Your task to perform on an android device: Go to Amazon Image 0: 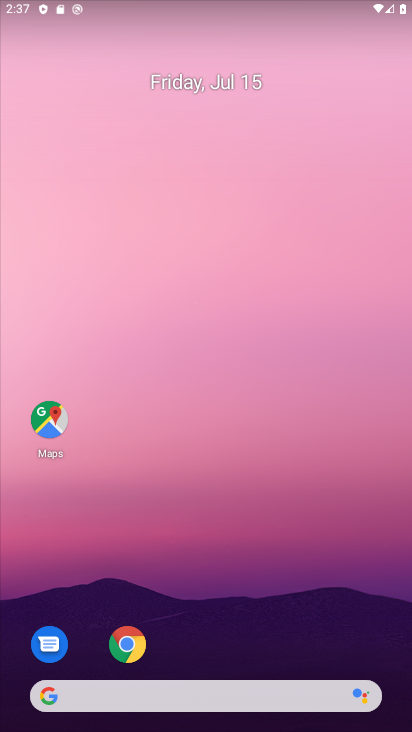
Step 0: drag from (312, 692) to (334, 50)
Your task to perform on an android device: Go to Amazon Image 1: 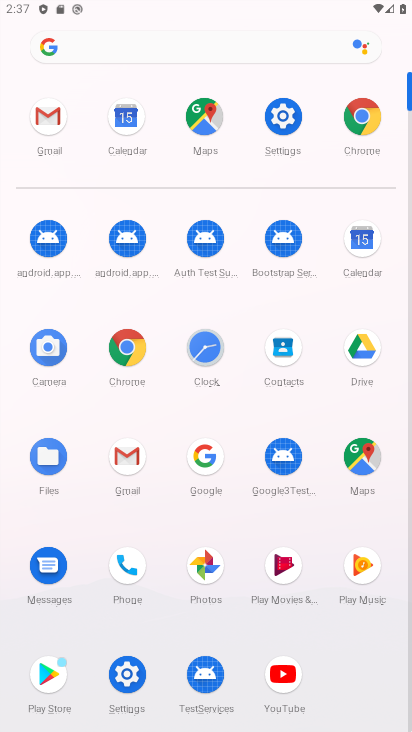
Step 1: click (120, 339)
Your task to perform on an android device: Go to Amazon Image 2: 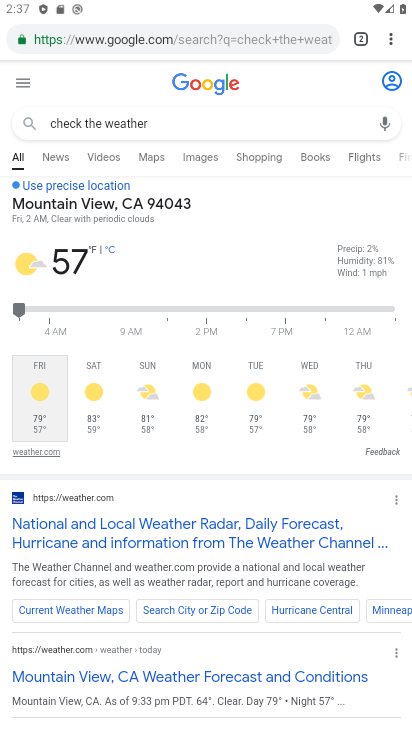
Step 2: drag from (393, 33) to (283, 428)
Your task to perform on an android device: Go to Amazon Image 3: 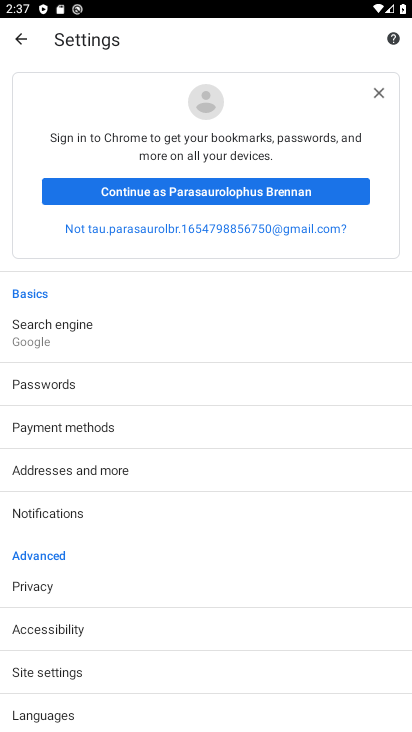
Step 3: press back button
Your task to perform on an android device: Go to Amazon Image 4: 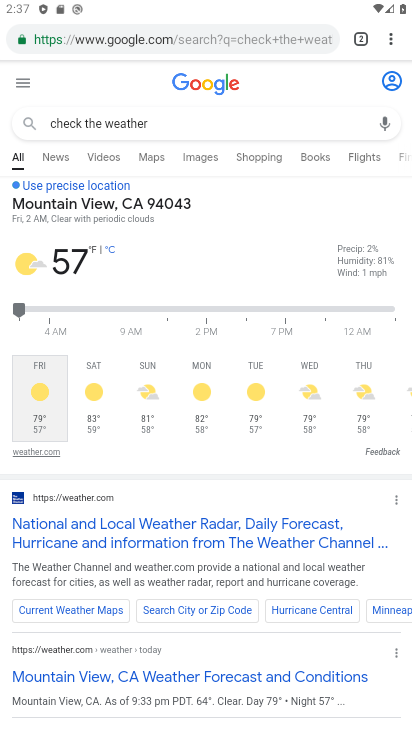
Step 4: click (312, 32)
Your task to perform on an android device: Go to Amazon Image 5: 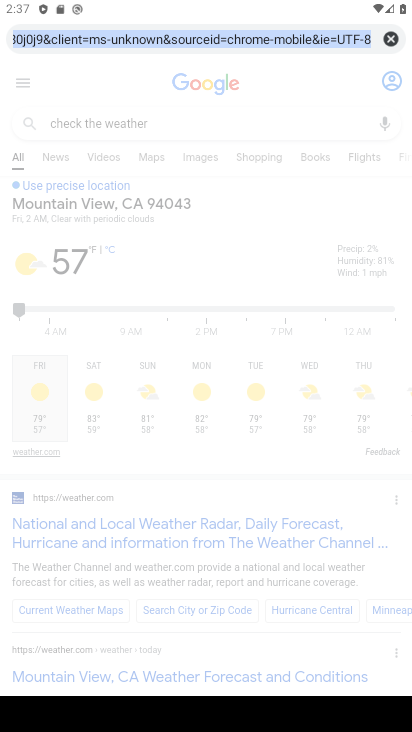
Step 5: type "amazon"
Your task to perform on an android device: Go to Amazon Image 6: 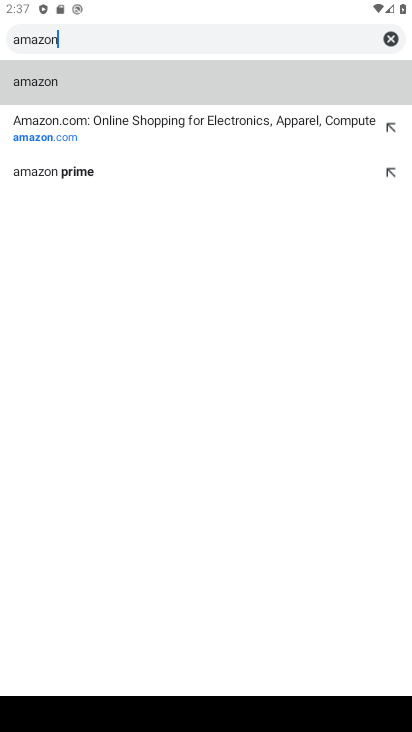
Step 6: click (67, 132)
Your task to perform on an android device: Go to Amazon Image 7: 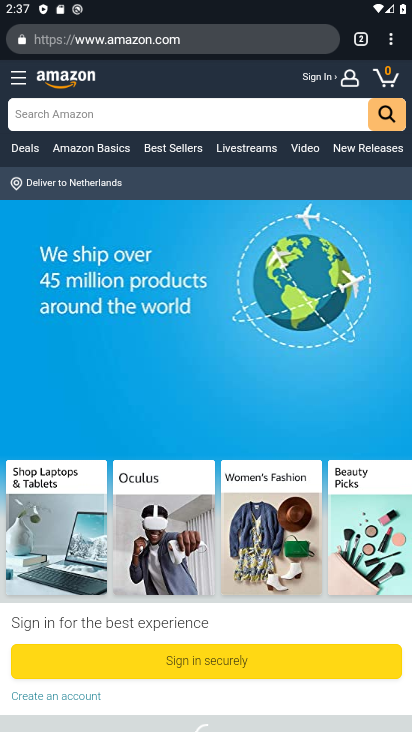
Step 7: task complete